Your task to perform on an android device: see creations saved in the google photos Image 0: 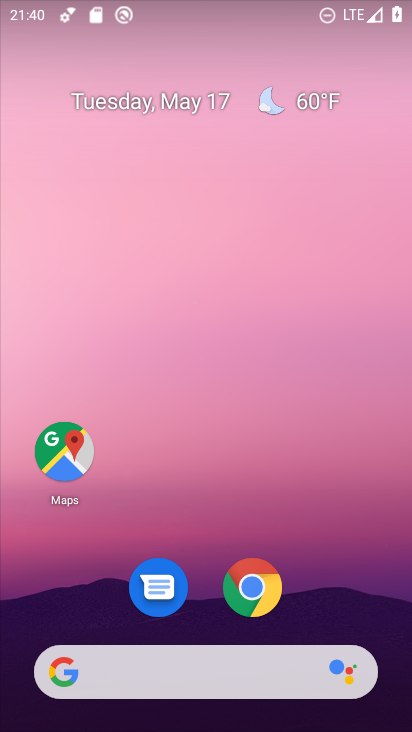
Step 0: drag from (280, 521) to (256, 272)
Your task to perform on an android device: see creations saved in the google photos Image 1: 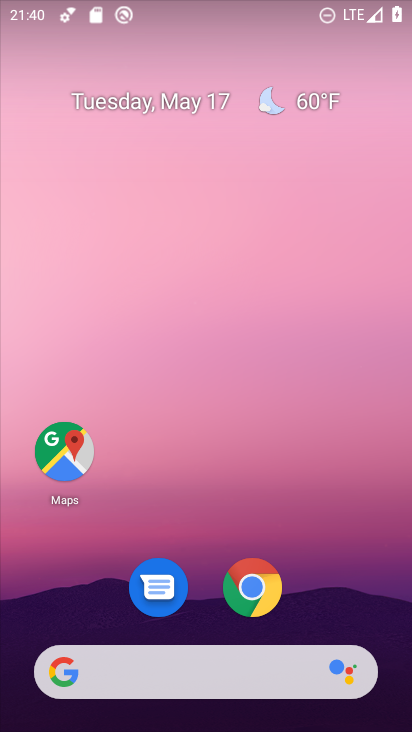
Step 1: drag from (221, 504) to (215, 206)
Your task to perform on an android device: see creations saved in the google photos Image 2: 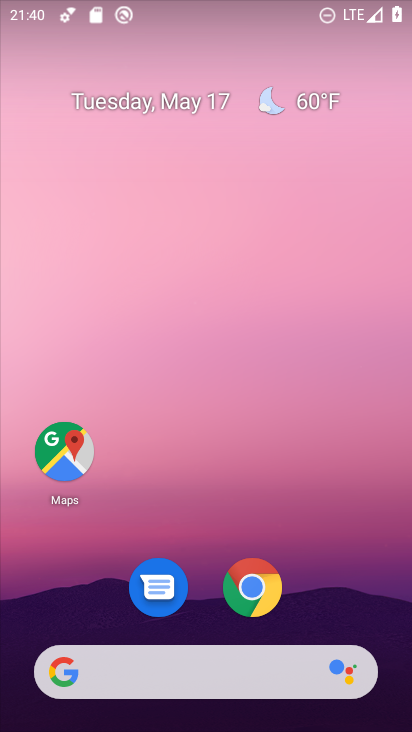
Step 2: drag from (229, 533) to (201, 166)
Your task to perform on an android device: see creations saved in the google photos Image 3: 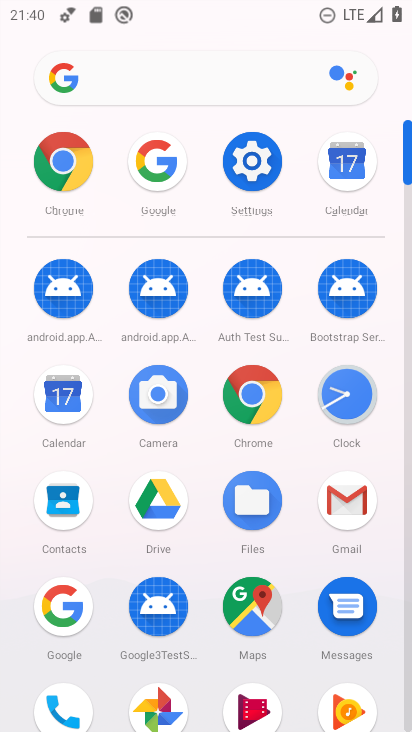
Step 3: click (167, 711)
Your task to perform on an android device: see creations saved in the google photos Image 4: 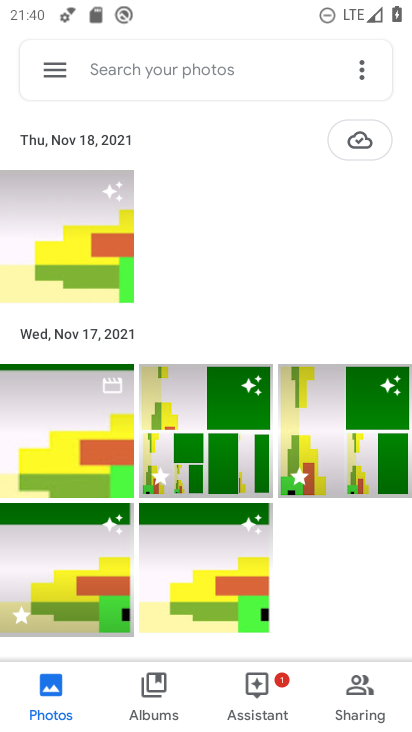
Step 4: click (173, 73)
Your task to perform on an android device: see creations saved in the google photos Image 5: 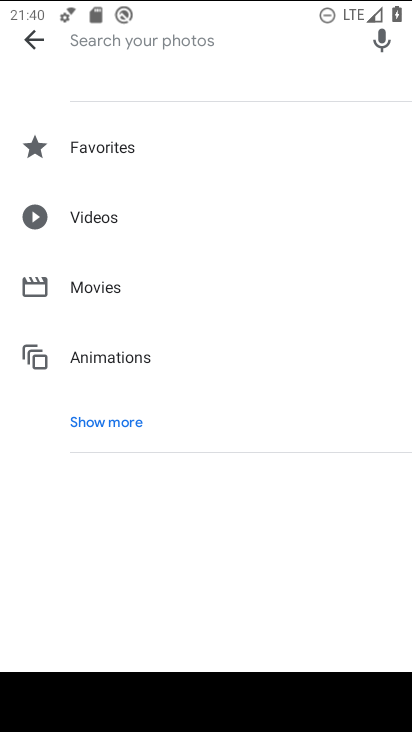
Step 5: click (105, 421)
Your task to perform on an android device: see creations saved in the google photos Image 6: 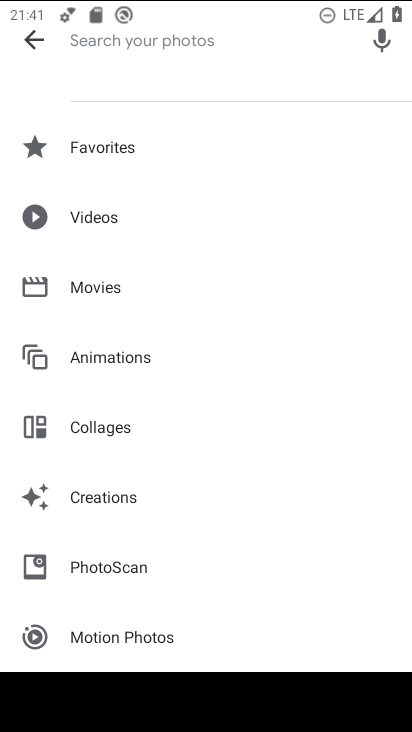
Step 6: drag from (179, 533) to (169, 472)
Your task to perform on an android device: see creations saved in the google photos Image 7: 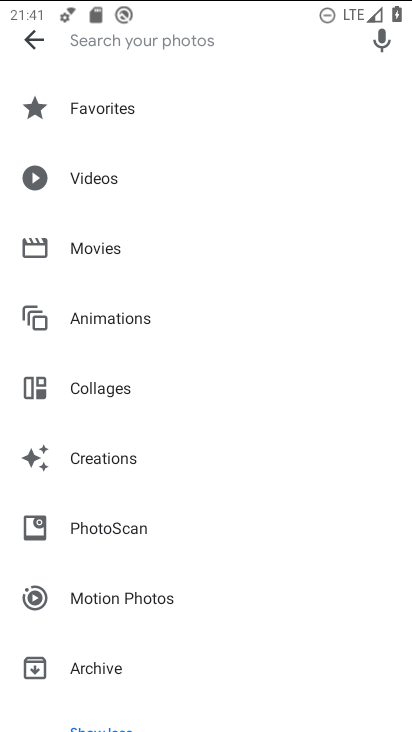
Step 7: click (116, 465)
Your task to perform on an android device: see creations saved in the google photos Image 8: 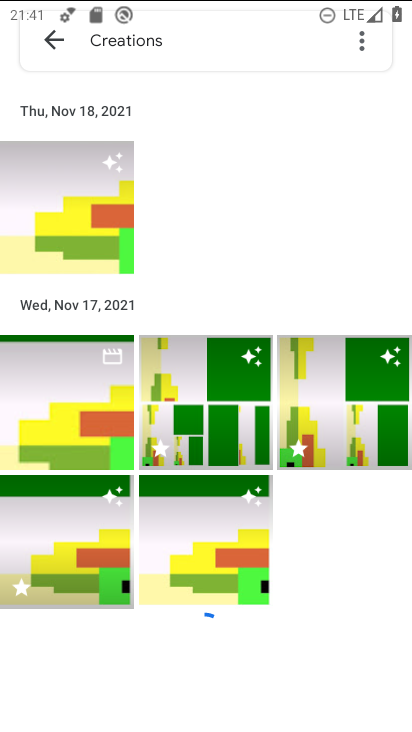
Step 8: task complete